Your task to perform on an android device: Open my contact list Image 0: 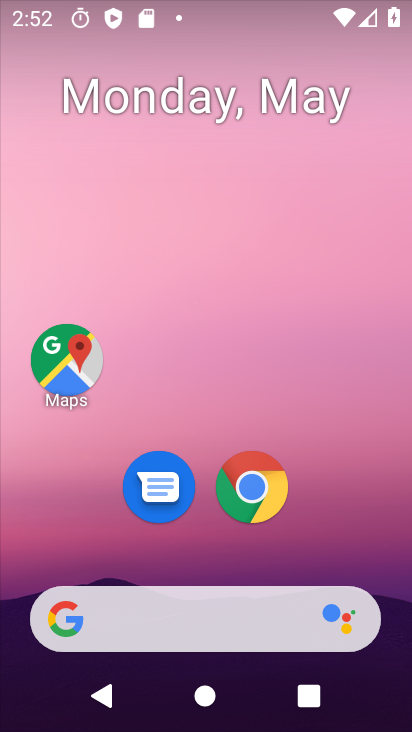
Step 0: drag from (214, 562) to (321, 6)
Your task to perform on an android device: Open my contact list Image 1: 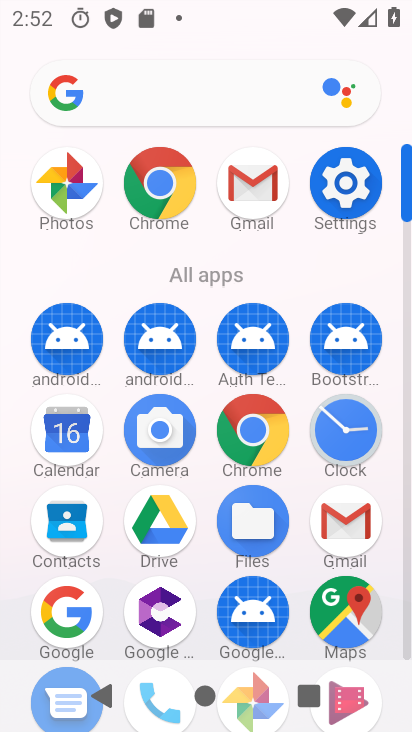
Step 1: click (80, 533)
Your task to perform on an android device: Open my contact list Image 2: 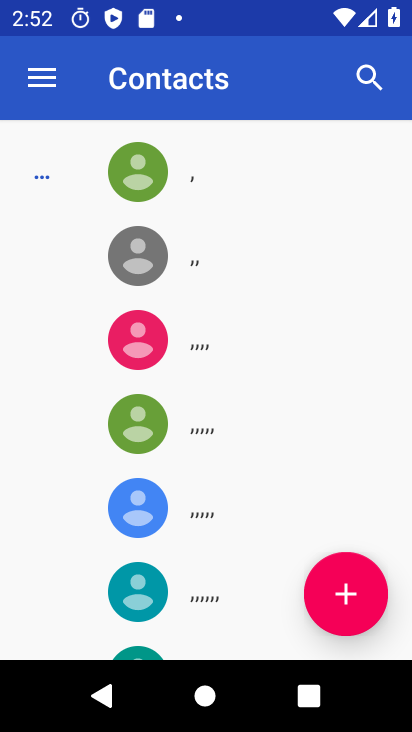
Step 2: task complete